Your task to perform on an android device: Go to internet settings Image 0: 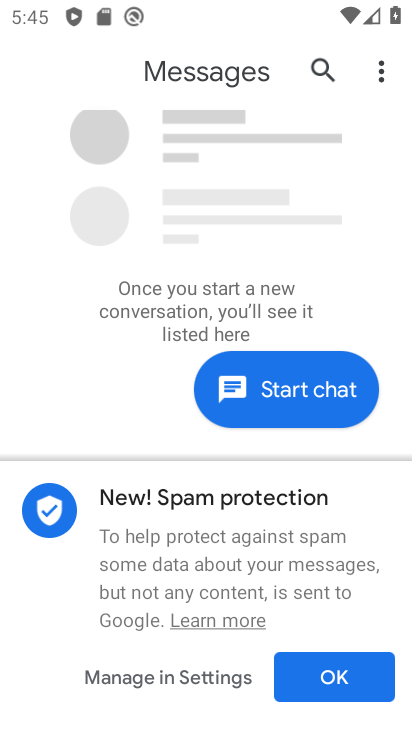
Step 0: press home button
Your task to perform on an android device: Go to internet settings Image 1: 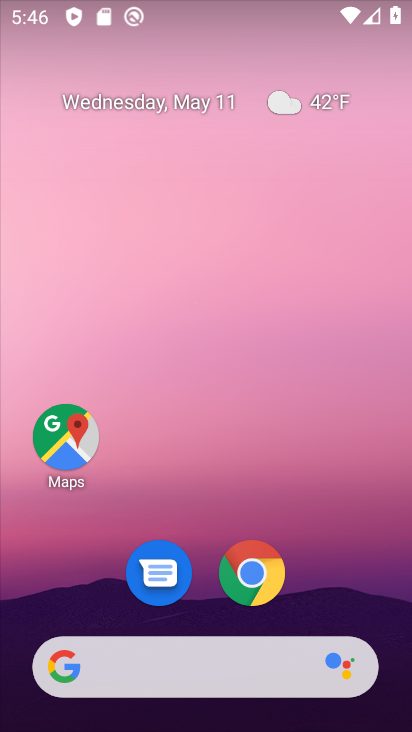
Step 1: drag from (304, 337) to (319, 236)
Your task to perform on an android device: Go to internet settings Image 2: 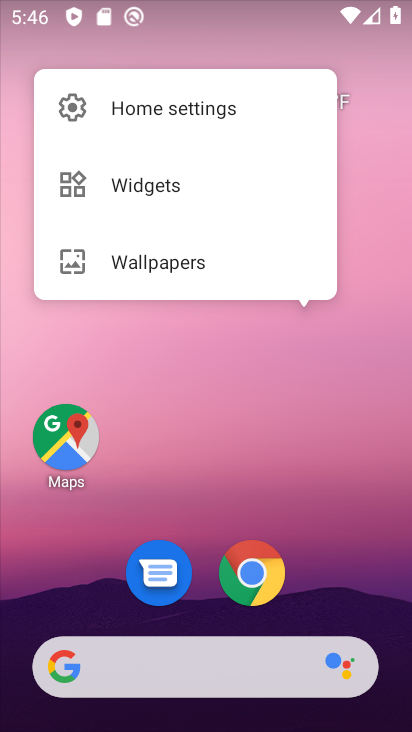
Step 2: drag from (323, 562) to (342, 209)
Your task to perform on an android device: Go to internet settings Image 3: 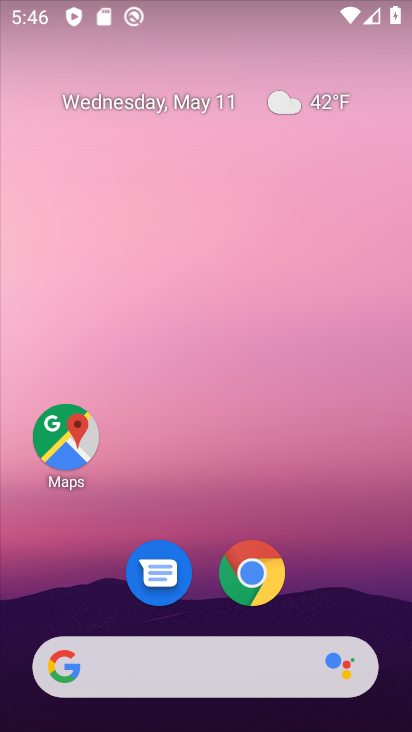
Step 3: click (233, 85)
Your task to perform on an android device: Go to internet settings Image 4: 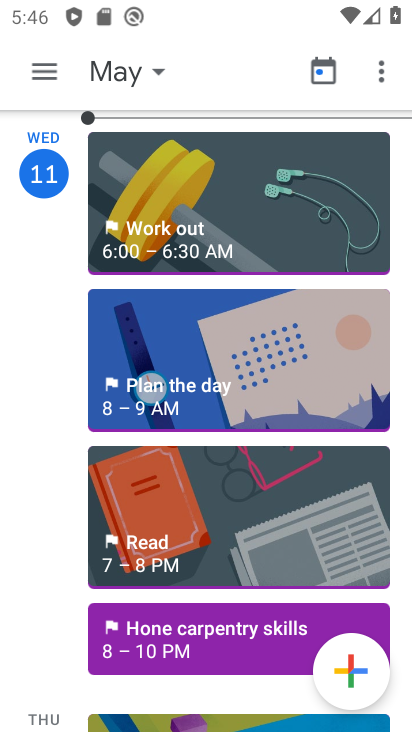
Step 4: press home button
Your task to perform on an android device: Go to internet settings Image 5: 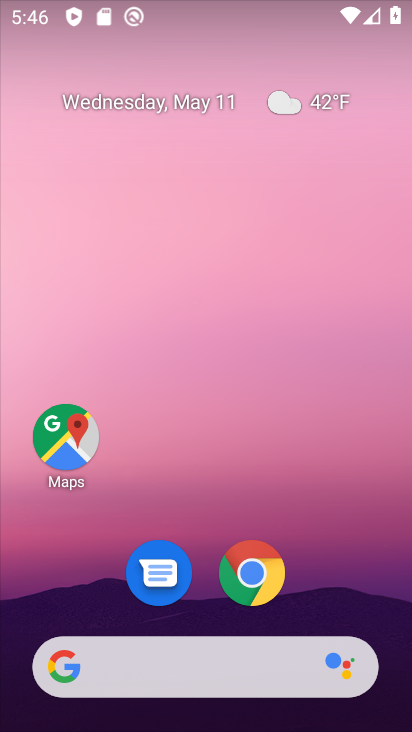
Step 5: drag from (286, 496) to (290, 231)
Your task to perform on an android device: Go to internet settings Image 6: 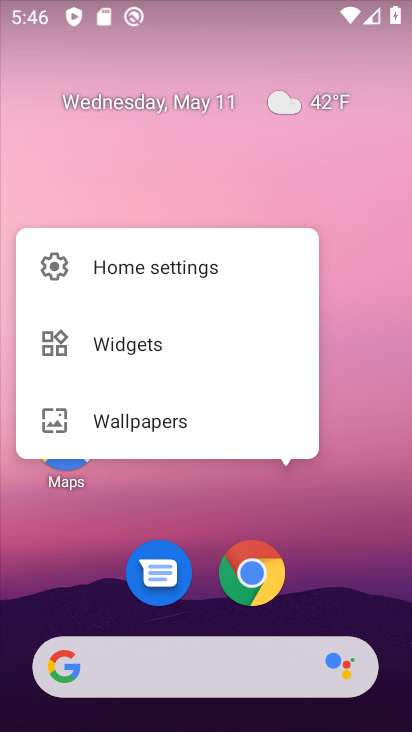
Step 6: click (311, 524)
Your task to perform on an android device: Go to internet settings Image 7: 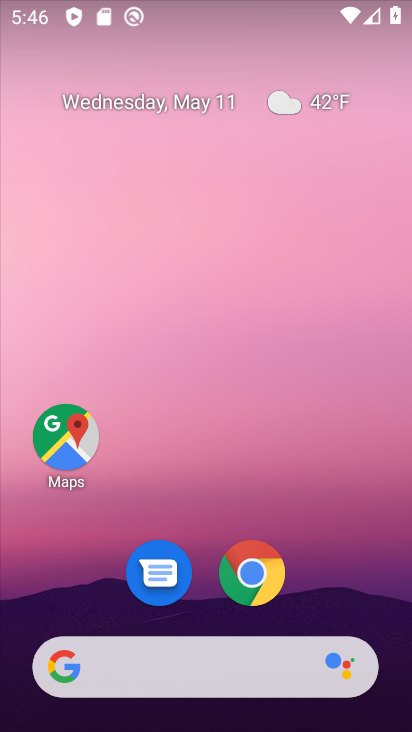
Step 7: click (252, 197)
Your task to perform on an android device: Go to internet settings Image 8: 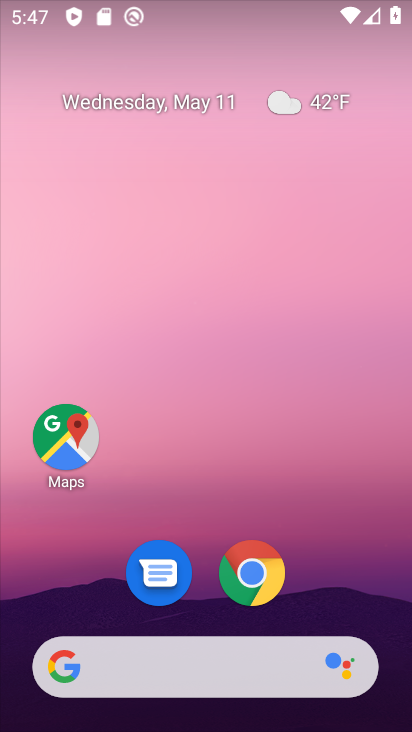
Step 8: drag from (295, 486) to (293, 213)
Your task to perform on an android device: Go to internet settings Image 9: 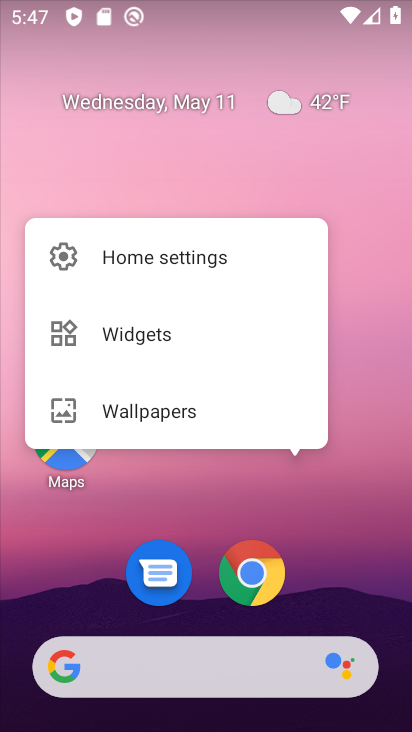
Step 9: click (295, 486)
Your task to perform on an android device: Go to internet settings Image 10: 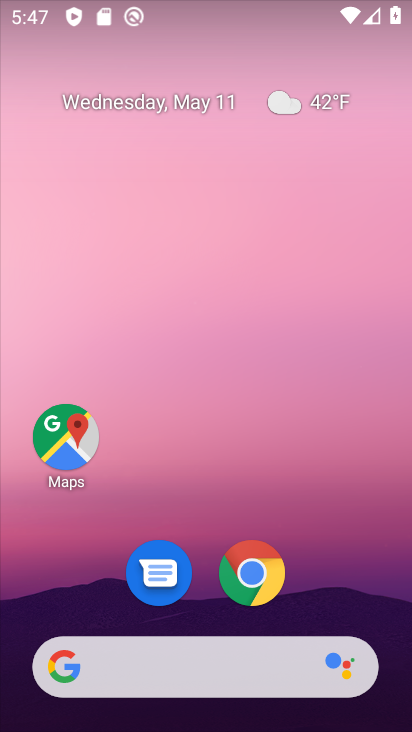
Step 10: drag from (282, 406) to (298, 102)
Your task to perform on an android device: Go to internet settings Image 11: 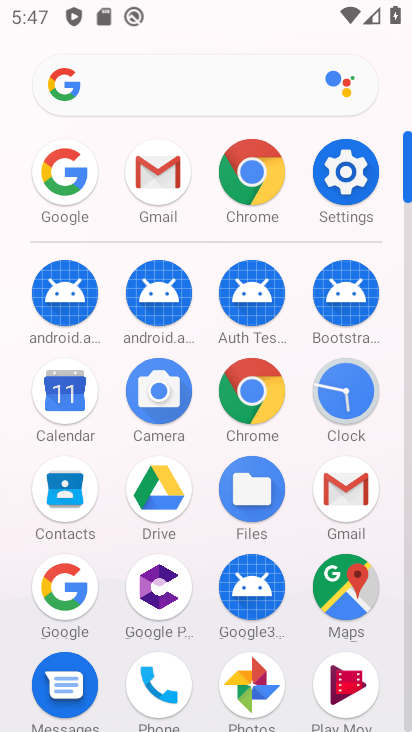
Step 11: click (351, 190)
Your task to perform on an android device: Go to internet settings Image 12: 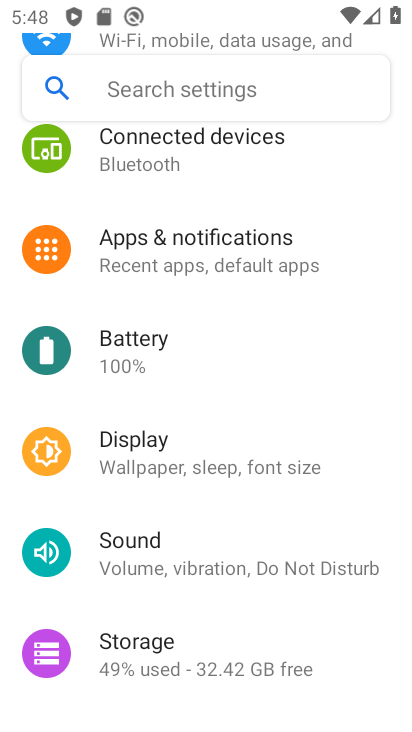
Step 12: task complete